Your task to perform on an android device: turn off improve location accuracy Image 0: 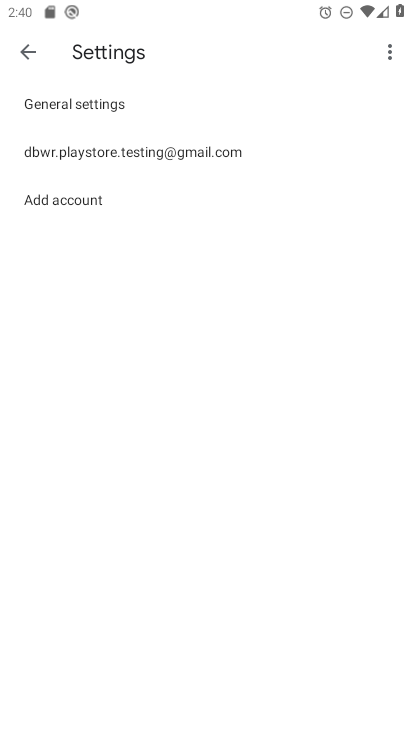
Step 0: press home button
Your task to perform on an android device: turn off improve location accuracy Image 1: 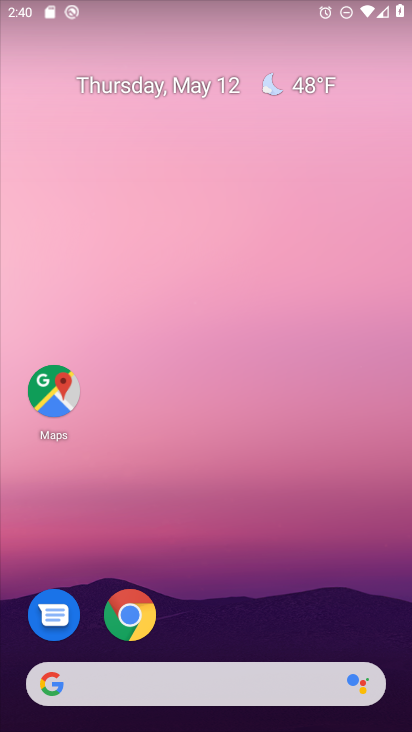
Step 1: drag from (352, 707) to (366, 22)
Your task to perform on an android device: turn off improve location accuracy Image 2: 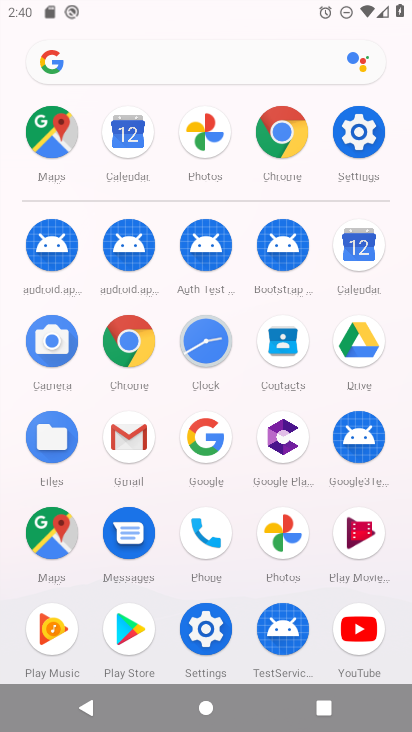
Step 2: click (374, 137)
Your task to perform on an android device: turn off improve location accuracy Image 3: 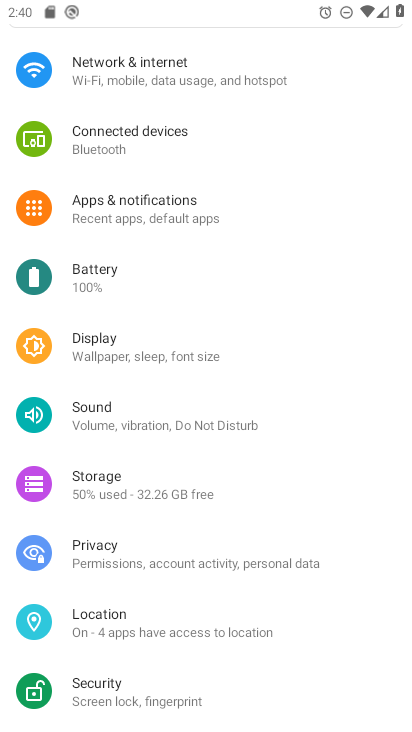
Step 3: click (195, 625)
Your task to perform on an android device: turn off improve location accuracy Image 4: 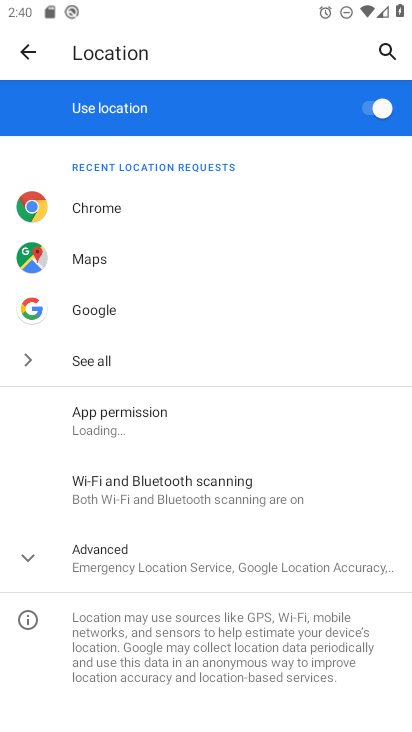
Step 4: click (258, 554)
Your task to perform on an android device: turn off improve location accuracy Image 5: 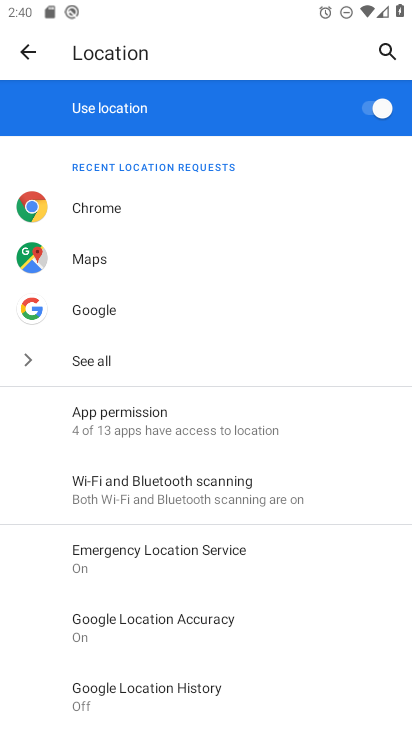
Step 5: click (238, 619)
Your task to perform on an android device: turn off improve location accuracy Image 6: 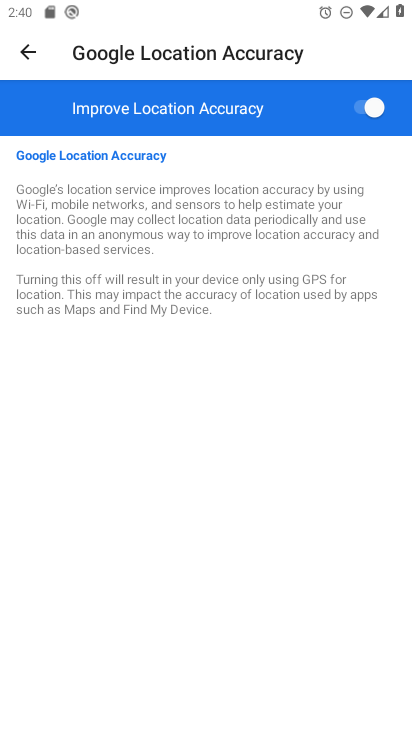
Step 6: click (359, 101)
Your task to perform on an android device: turn off improve location accuracy Image 7: 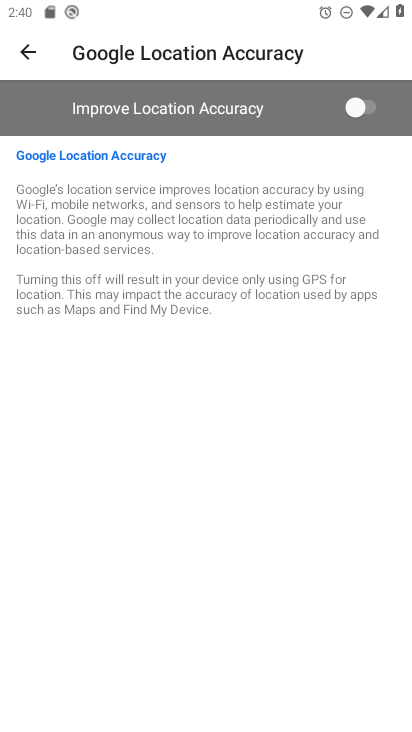
Step 7: task complete